Your task to perform on an android device: Open CNN.com Image 0: 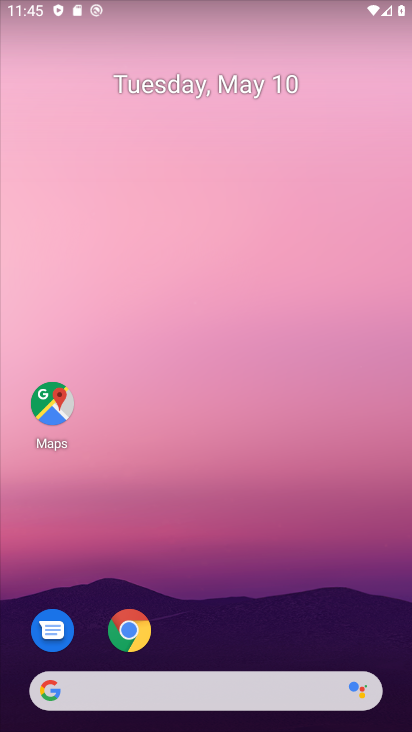
Step 0: drag from (202, 667) to (136, 31)
Your task to perform on an android device: Open CNN.com Image 1: 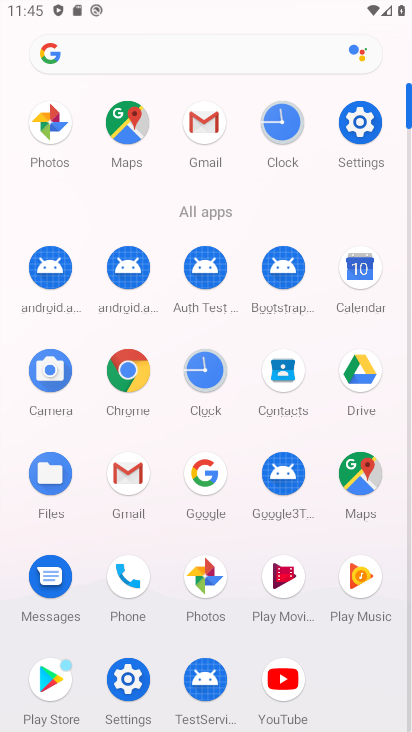
Step 1: click (126, 383)
Your task to perform on an android device: Open CNN.com Image 2: 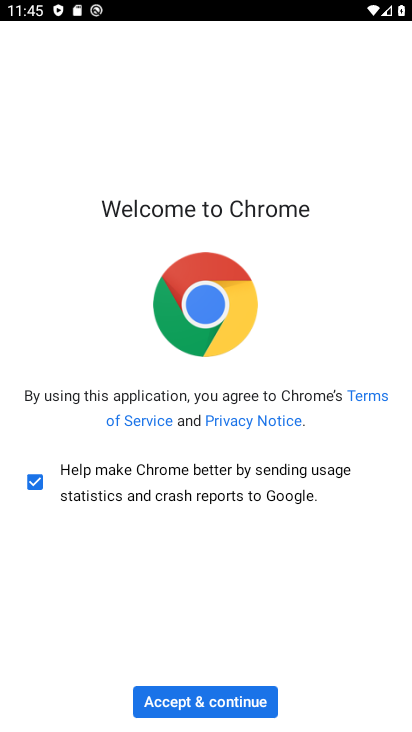
Step 2: click (188, 697)
Your task to perform on an android device: Open CNN.com Image 3: 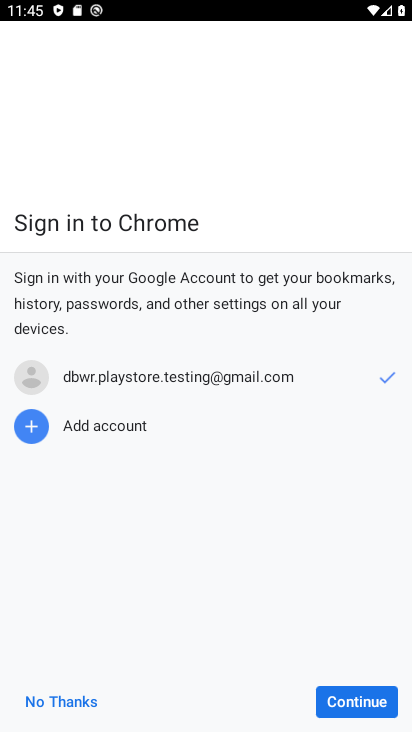
Step 3: click (320, 697)
Your task to perform on an android device: Open CNN.com Image 4: 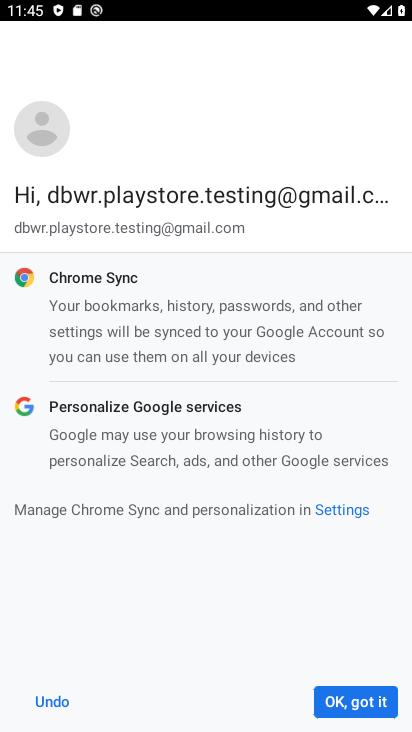
Step 4: click (365, 699)
Your task to perform on an android device: Open CNN.com Image 5: 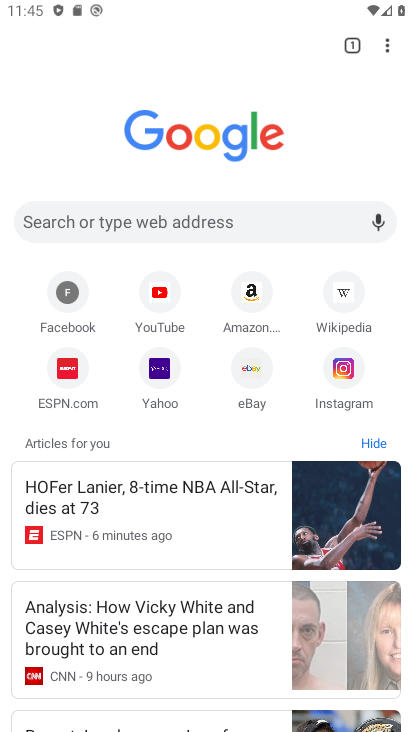
Step 5: click (162, 215)
Your task to perform on an android device: Open CNN.com Image 6: 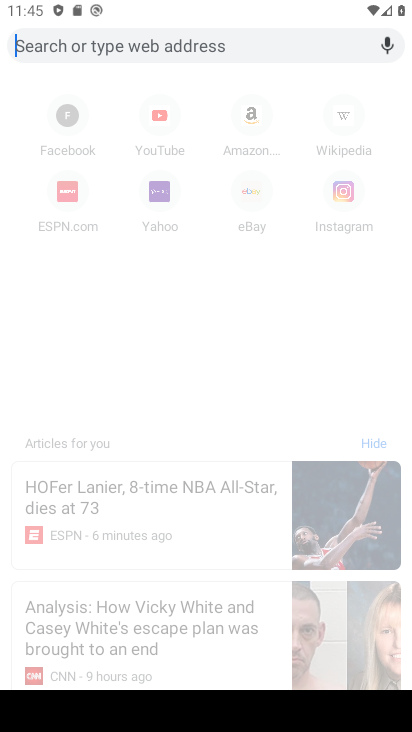
Step 6: type "cnn"
Your task to perform on an android device: Open CNN.com Image 7: 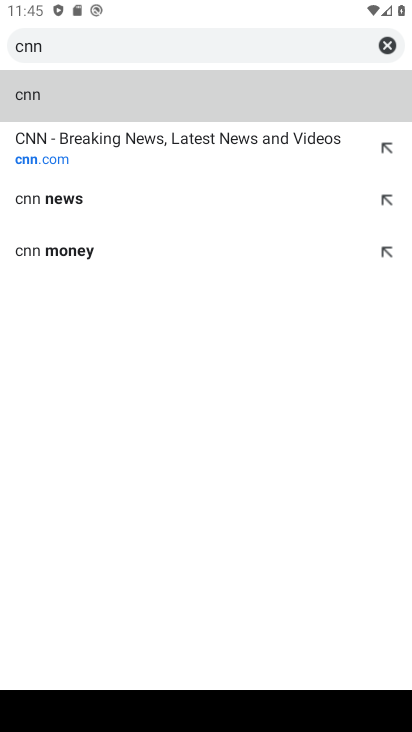
Step 7: click (119, 164)
Your task to perform on an android device: Open CNN.com Image 8: 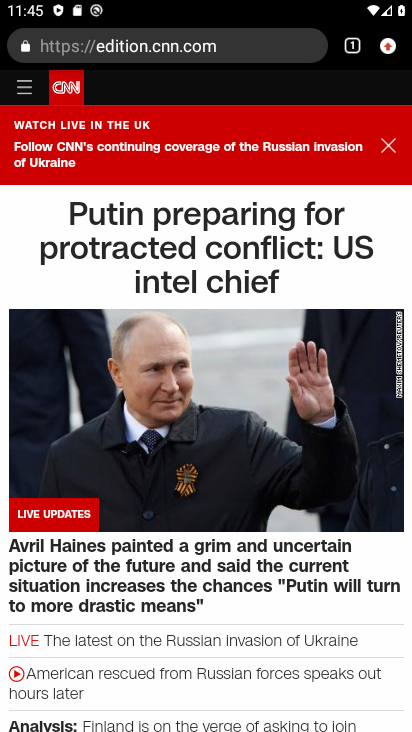
Step 8: task complete